Your task to perform on an android device: turn on the 12-hour format for clock Image 0: 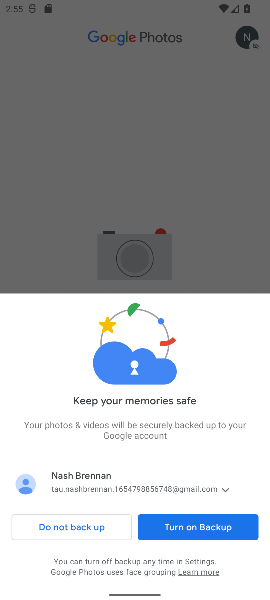
Step 0: click (182, 520)
Your task to perform on an android device: turn on the 12-hour format for clock Image 1: 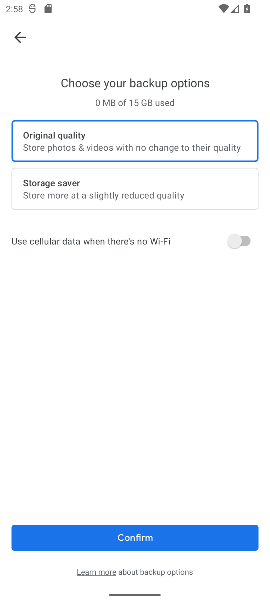
Step 1: task complete